Your task to perform on an android device: allow notifications from all sites in the chrome app Image 0: 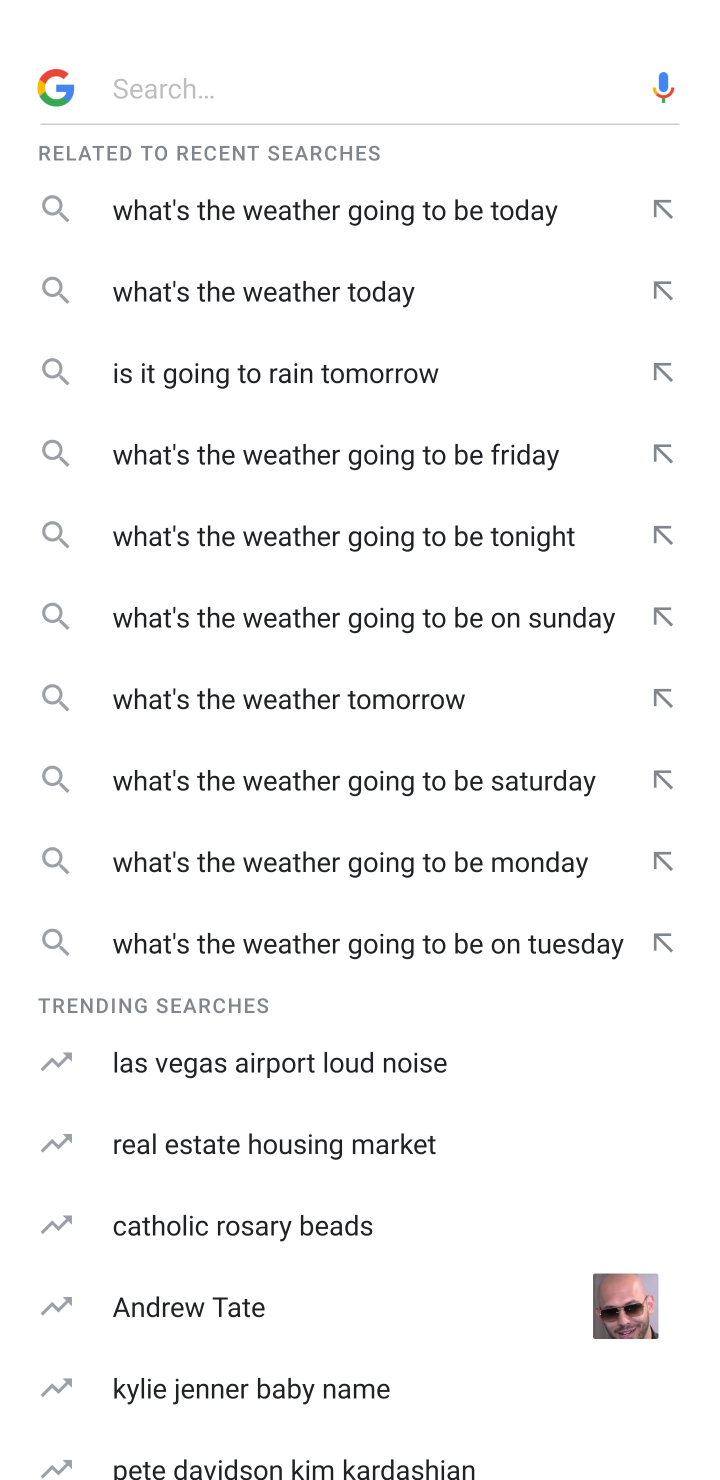
Step 0: press home button
Your task to perform on an android device: allow notifications from all sites in the chrome app Image 1: 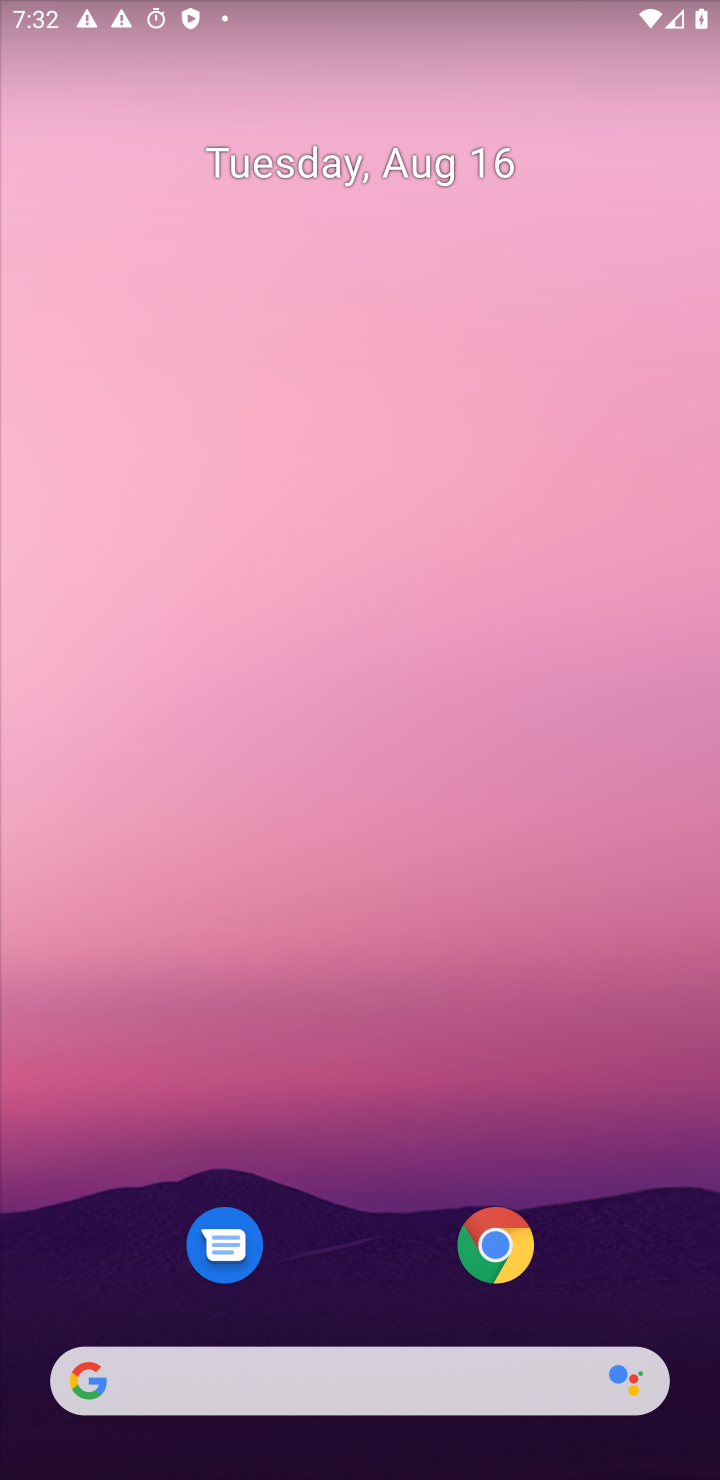
Step 1: press home button
Your task to perform on an android device: allow notifications from all sites in the chrome app Image 2: 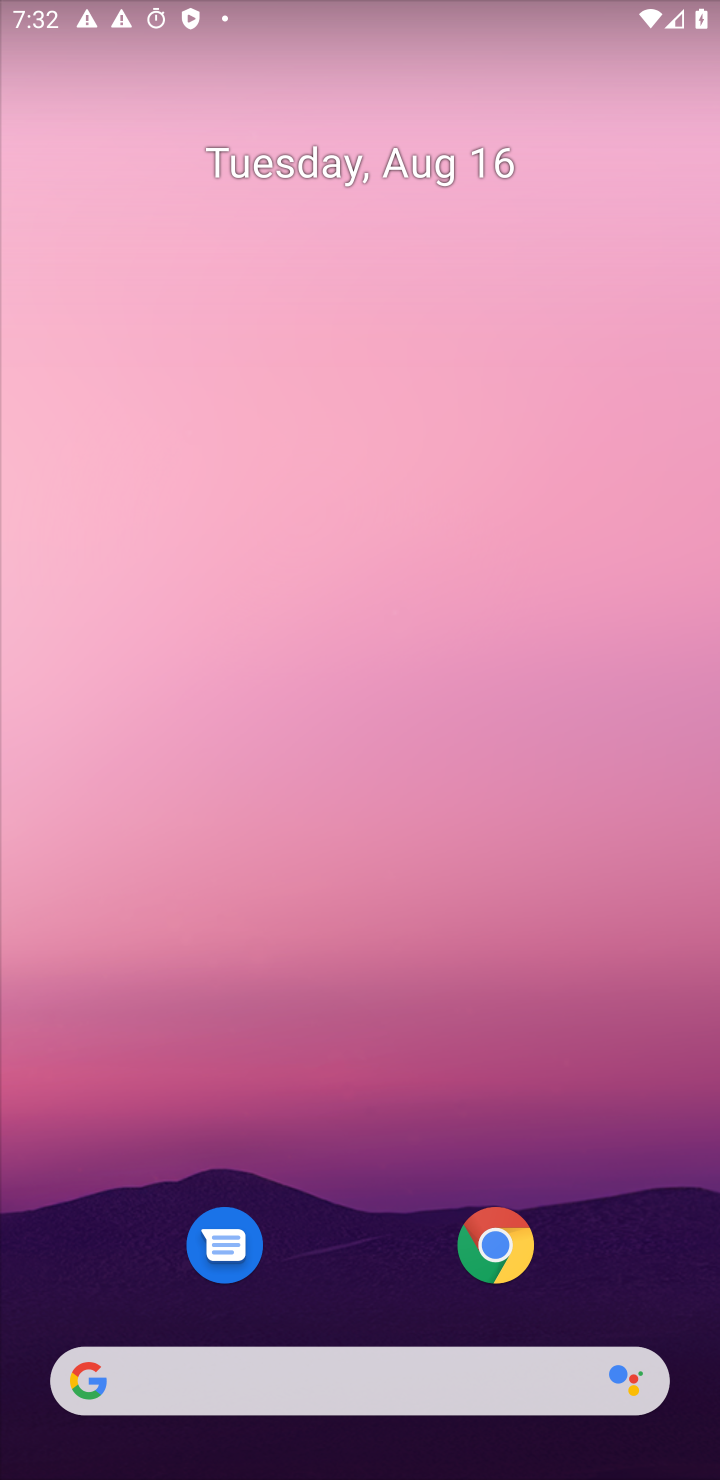
Step 2: click (504, 1253)
Your task to perform on an android device: allow notifications from all sites in the chrome app Image 3: 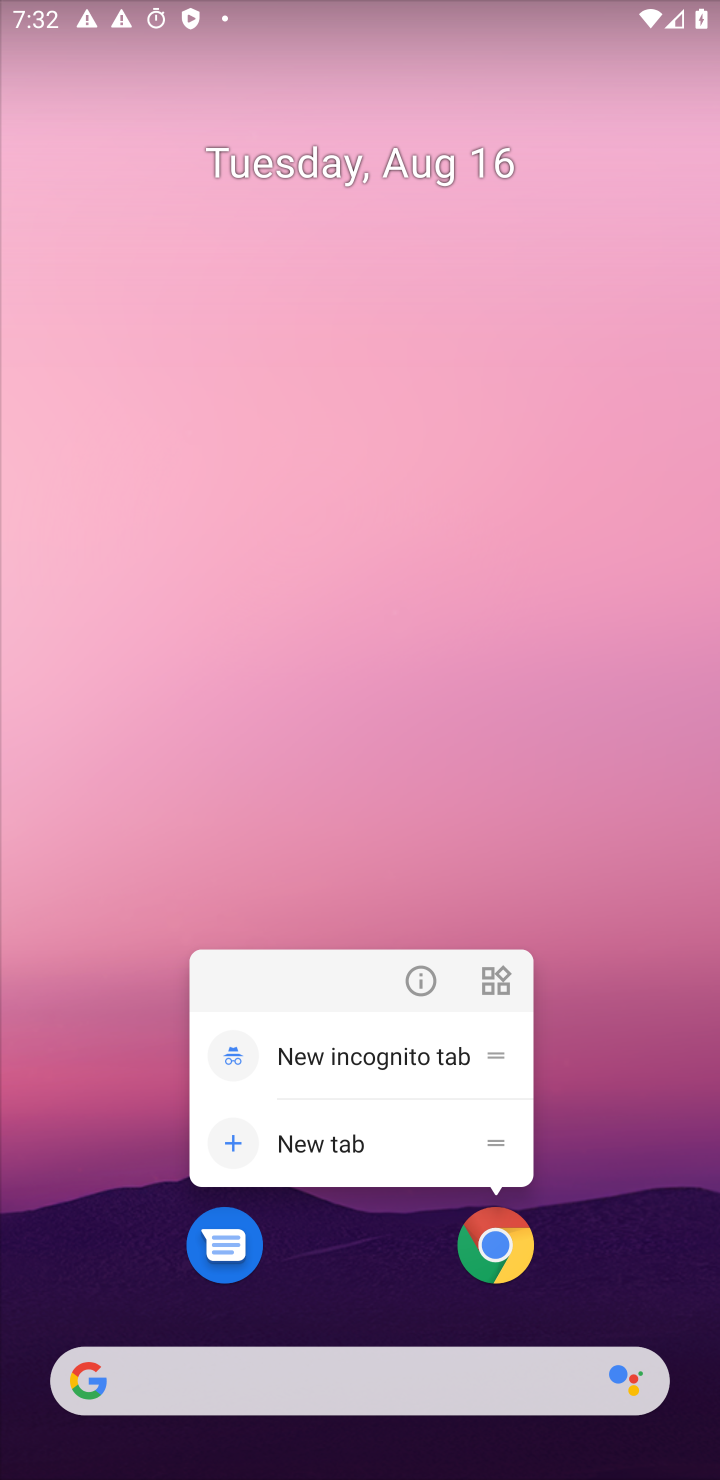
Step 3: click (364, 567)
Your task to perform on an android device: allow notifications from all sites in the chrome app Image 4: 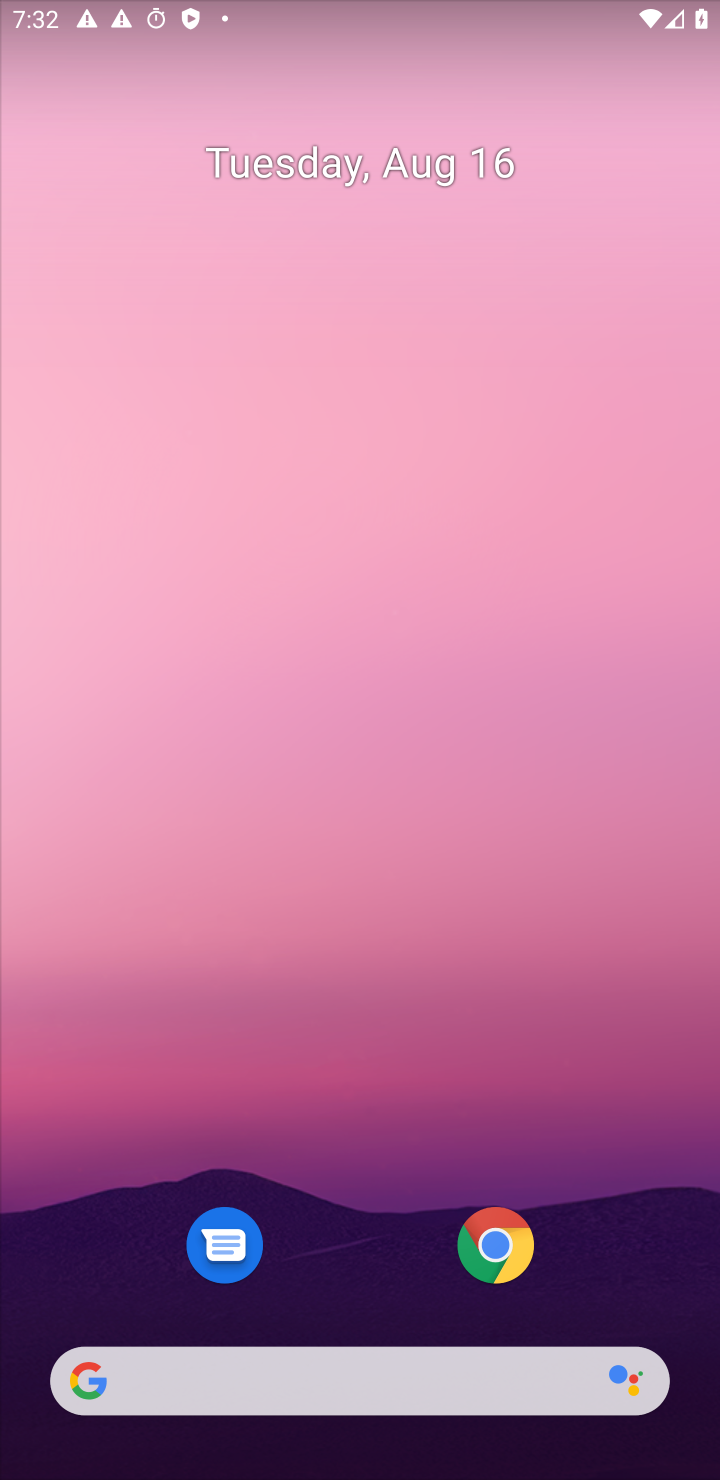
Step 4: drag from (391, 1176) to (272, 171)
Your task to perform on an android device: allow notifications from all sites in the chrome app Image 5: 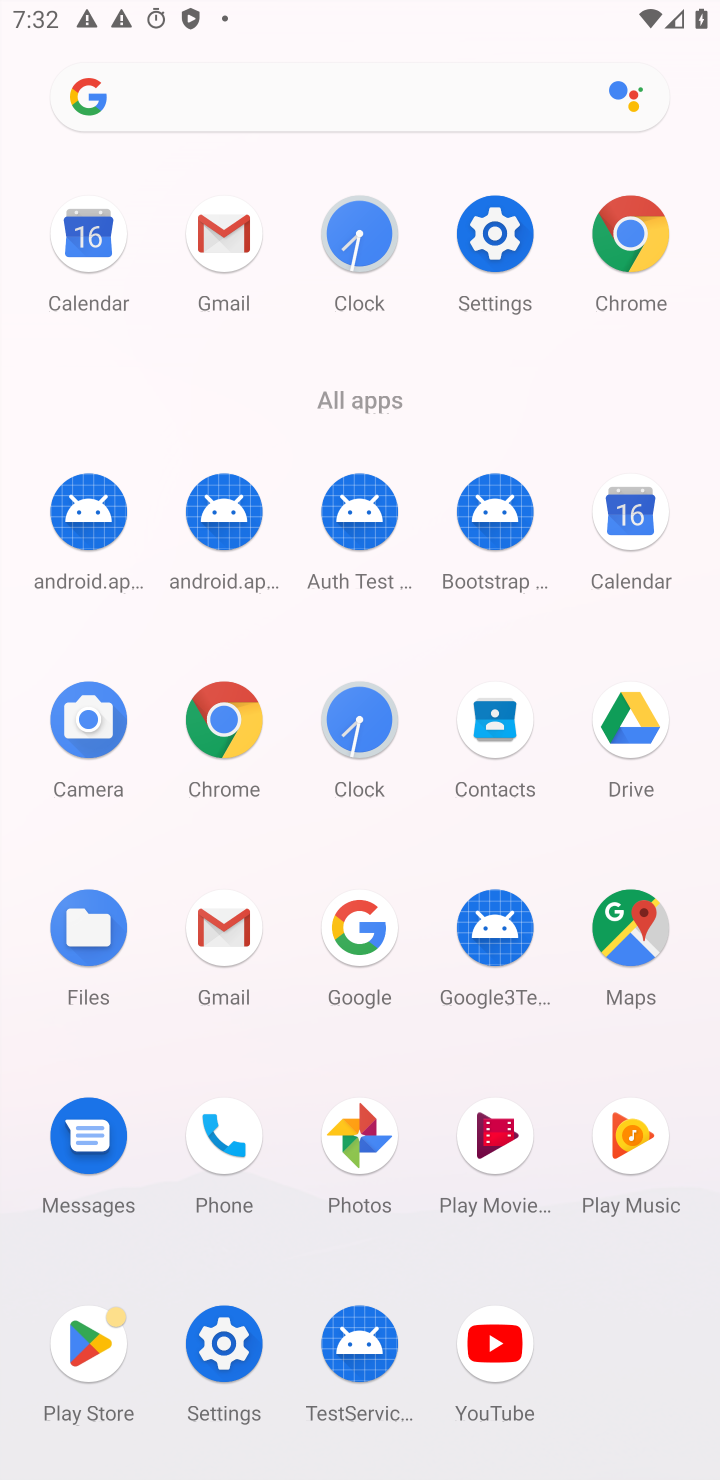
Step 5: click (624, 222)
Your task to perform on an android device: allow notifications from all sites in the chrome app Image 6: 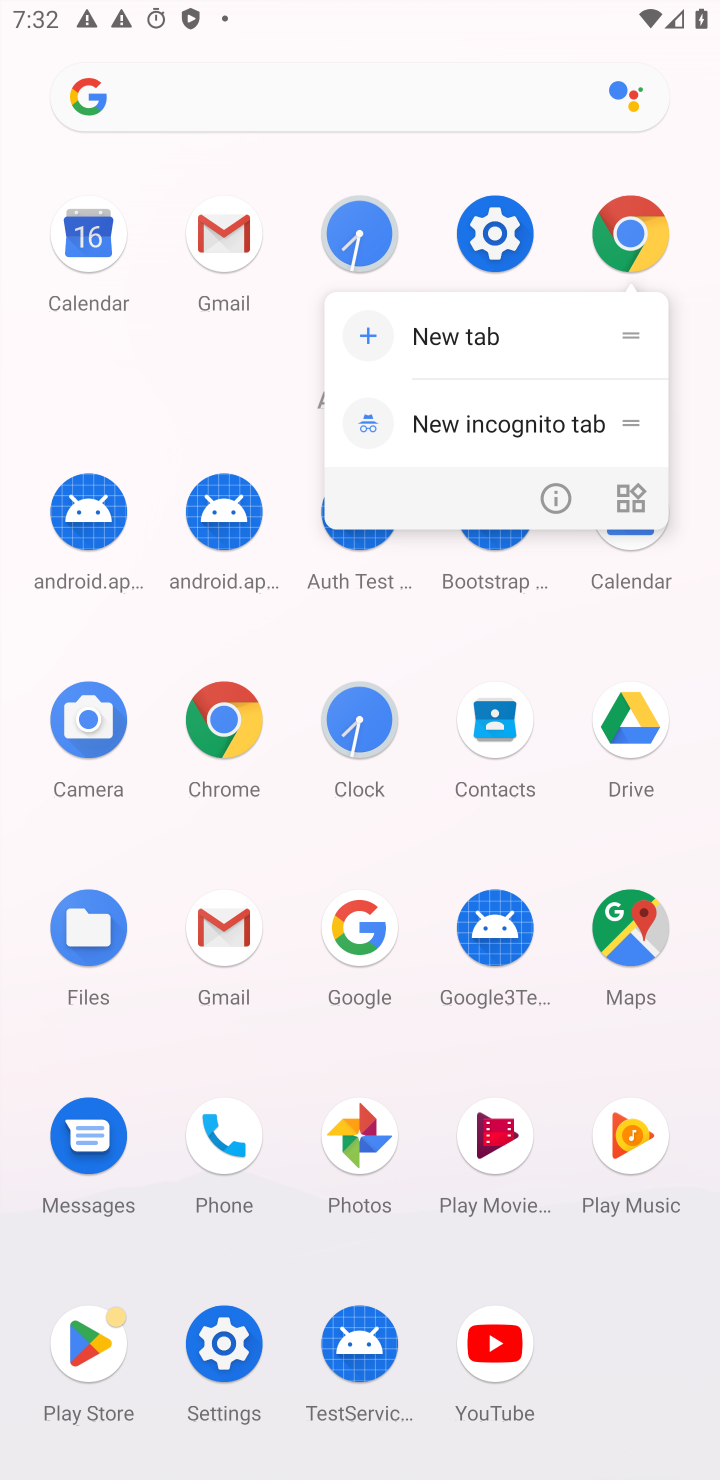
Step 6: click (629, 232)
Your task to perform on an android device: allow notifications from all sites in the chrome app Image 7: 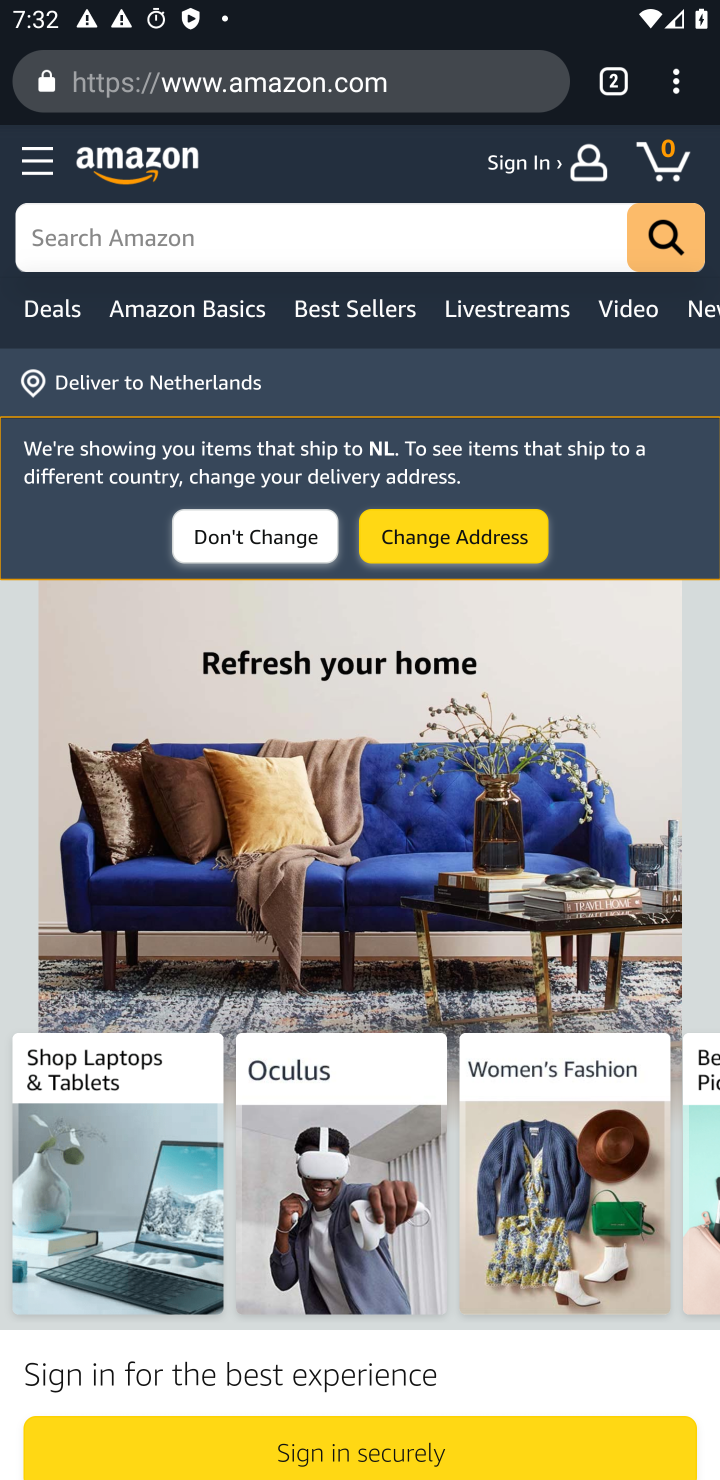
Step 7: drag from (681, 86) to (392, 990)
Your task to perform on an android device: allow notifications from all sites in the chrome app Image 8: 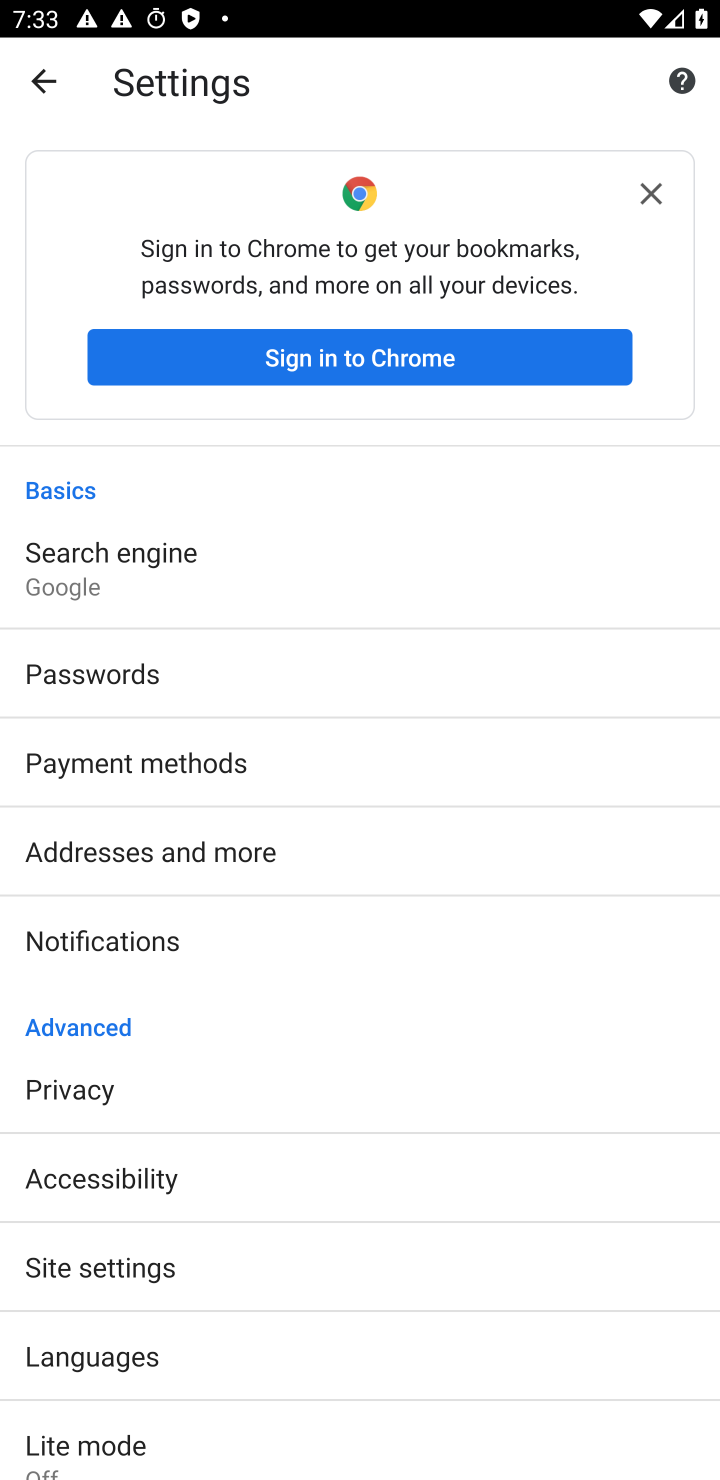
Step 8: drag from (153, 1024) to (149, 495)
Your task to perform on an android device: allow notifications from all sites in the chrome app Image 9: 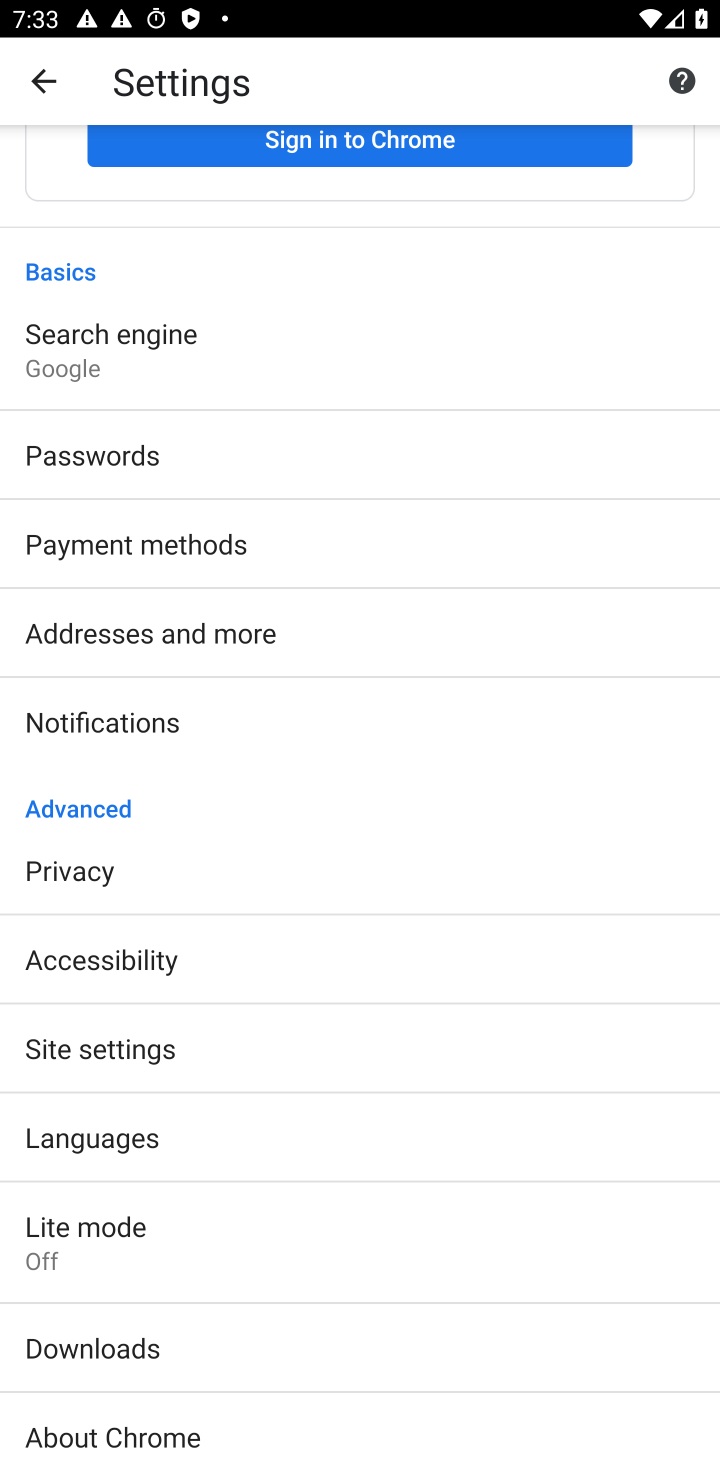
Step 9: drag from (194, 782) to (202, 350)
Your task to perform on an android device: allow notifications from all sites in the chrome app Image 10: 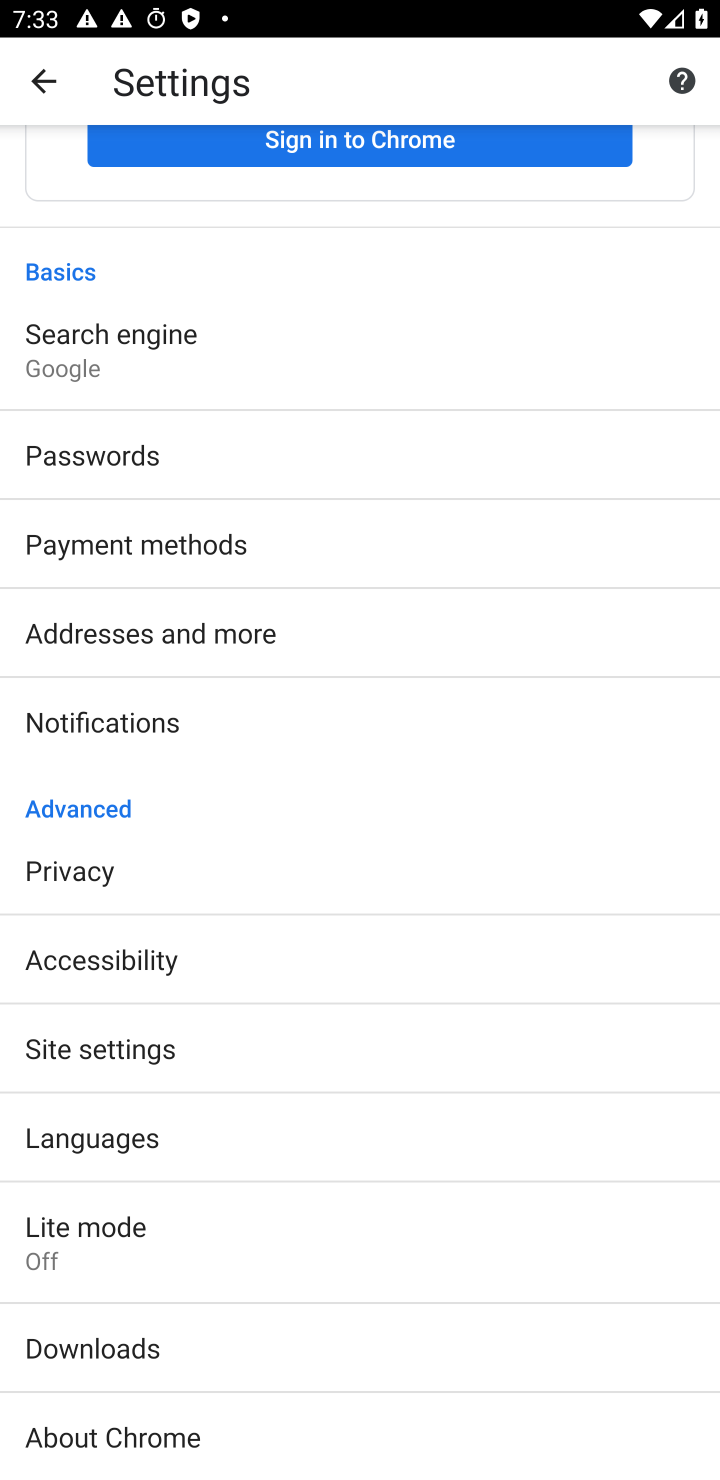
Step 10: click (69, 1045)
Your task to perform on an android device: allow notifications from all sites in the chrome app Image 11: 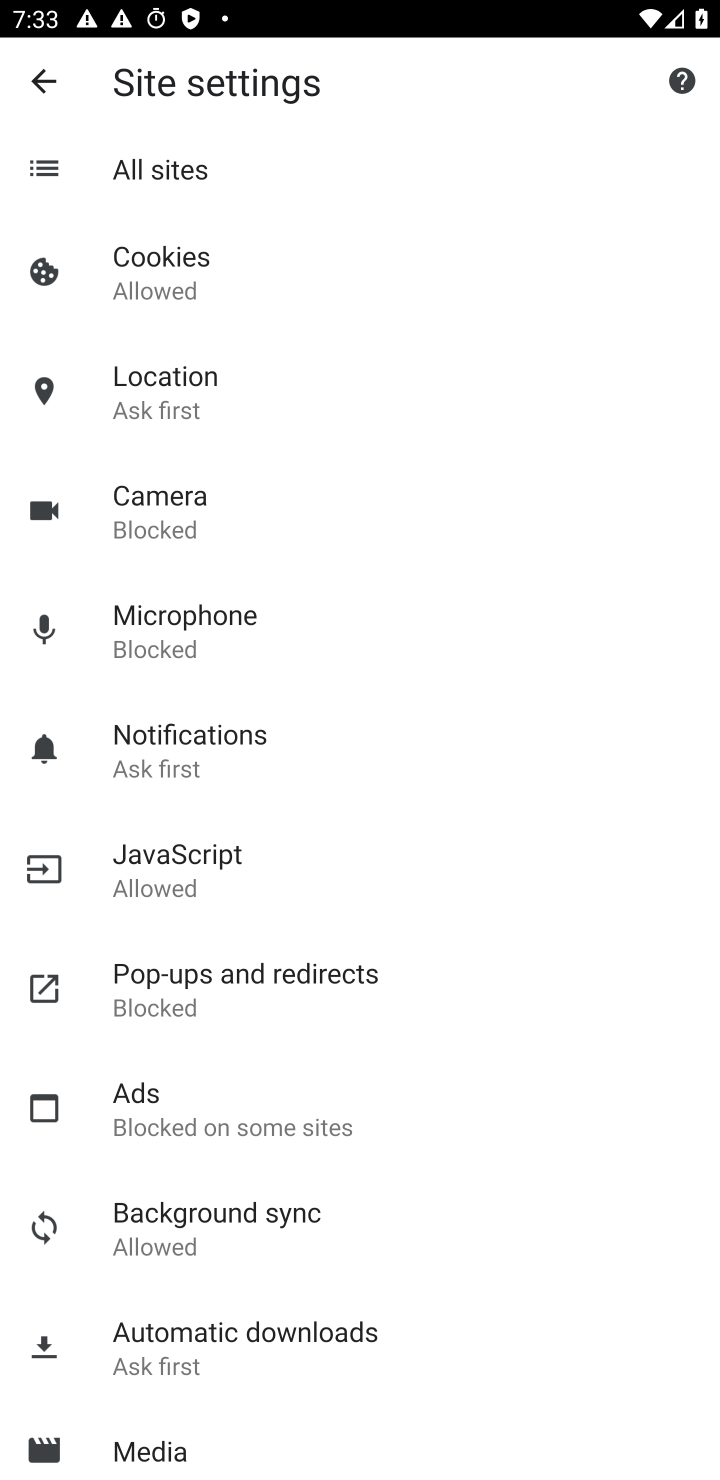
Step 11: click (225, 739)
Your task to perform on an android device: allow notifications from all sites in the chrome app Image 12: 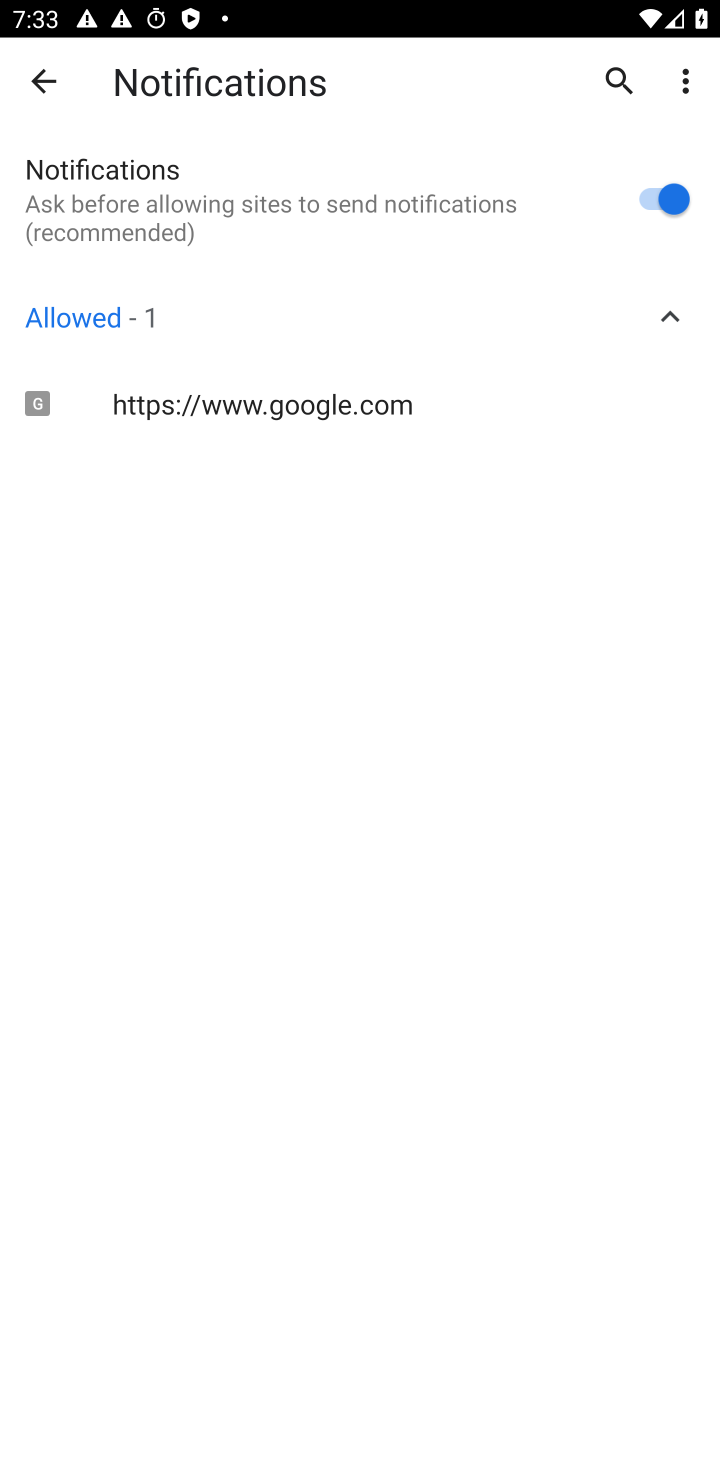
Step 12: task complete